Your task to perform on an android device: turn off location Image 0: 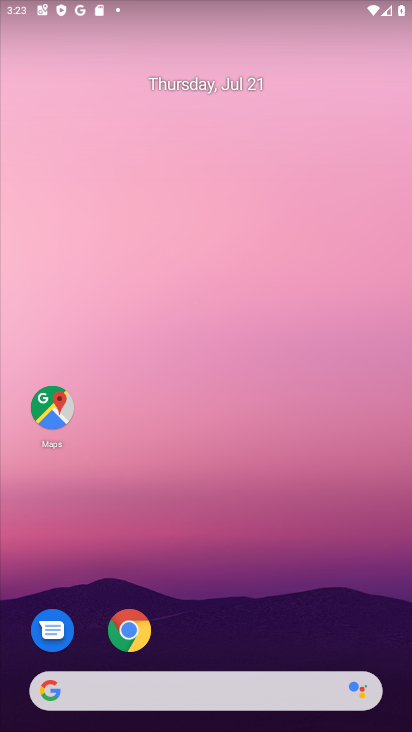
Step 0: drag from (249, 448) to (278, 7)
Your task to perform on an android device: turn off location Image 1: 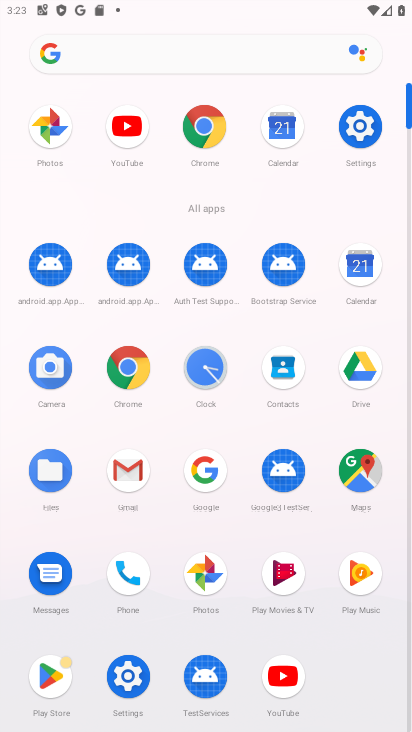
Step 1: click (349, 123)
Your task to perform on an android device: turn off location Image 2: 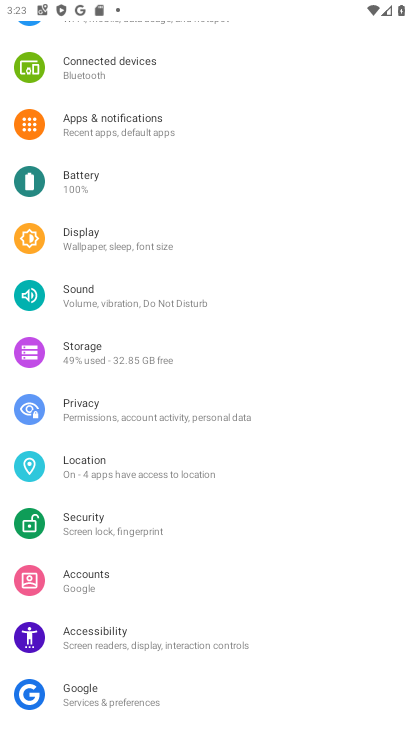
Step 2: click (121, 475)
Your task to perform on an android device: turn off location Image 3: 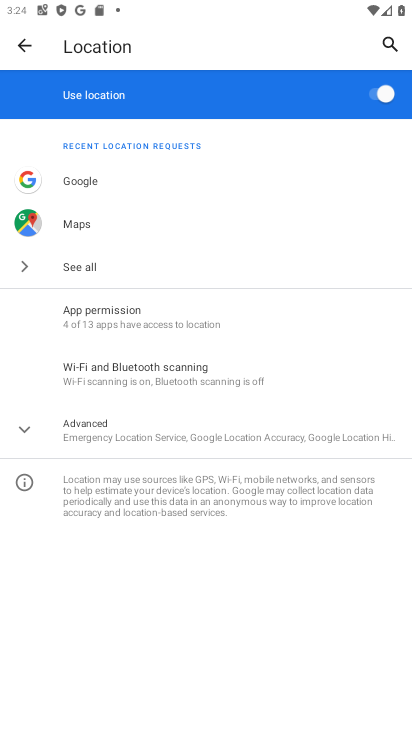
Step 3: click (367, 88)
Your task to perform on an android device: turn off location Image 4: 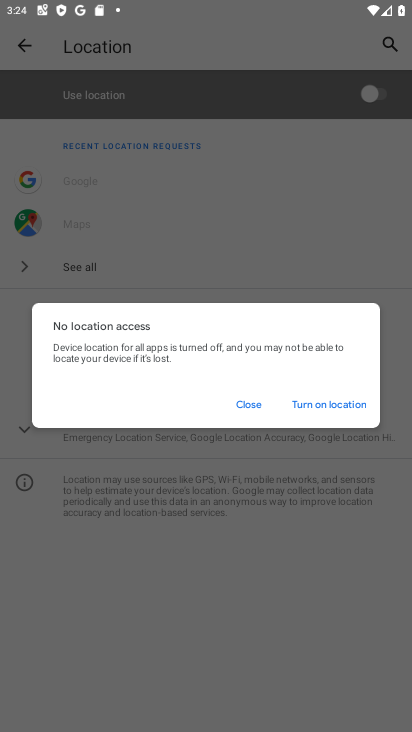
Step 4: task complete